Your task to perform on an android device: change notifications settings Image 0: 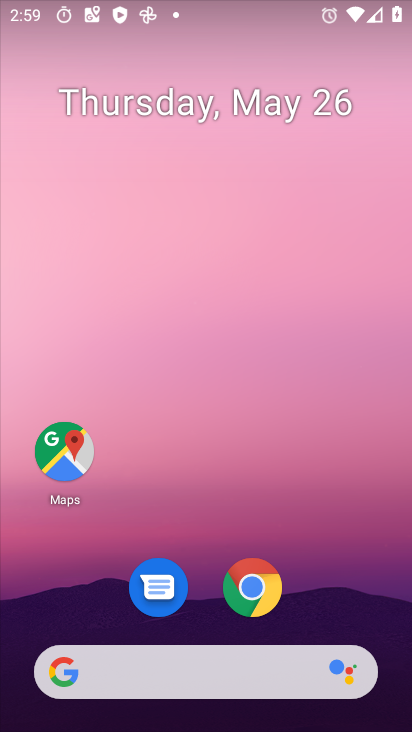
Step 0: drag from (362, 594) to (360, 178)
Your task to perform on an android device: change notifications settings Image 1: 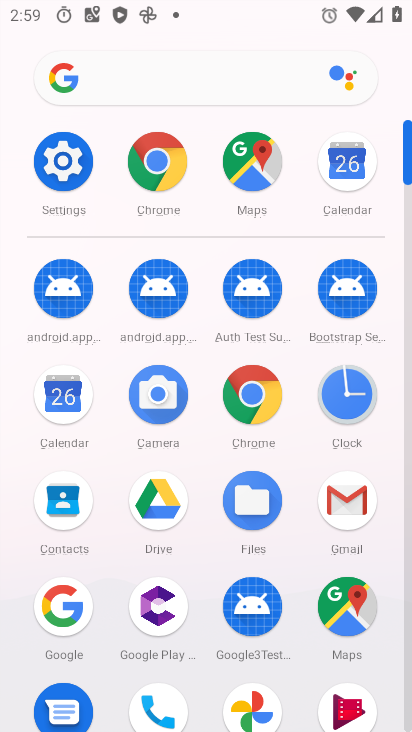
Step 1: click (73, 172)
Your task to perform on an android device: change notifications settings Image 2: 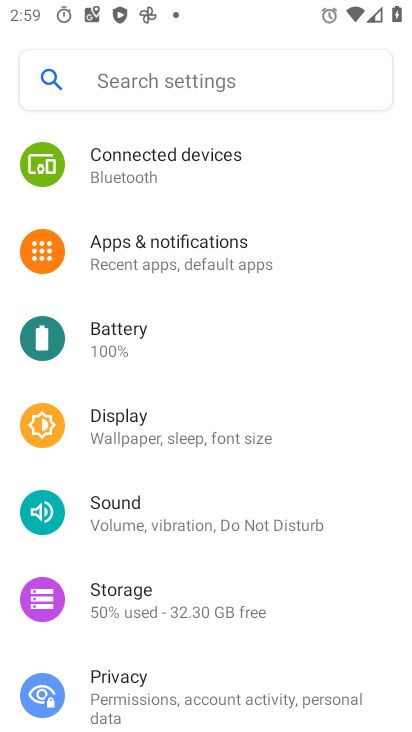
Step 2: drag from (339, 216) to (338, 320)
Your task to perform on an android device: change notifications settings Image 3: 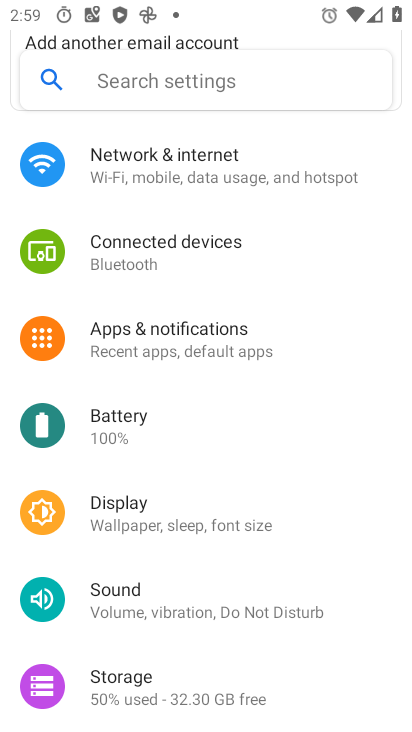
Step 3: drag from (333, 205) to (342, 303)
Your task to perform on an android device: change notifications settings Image 4: 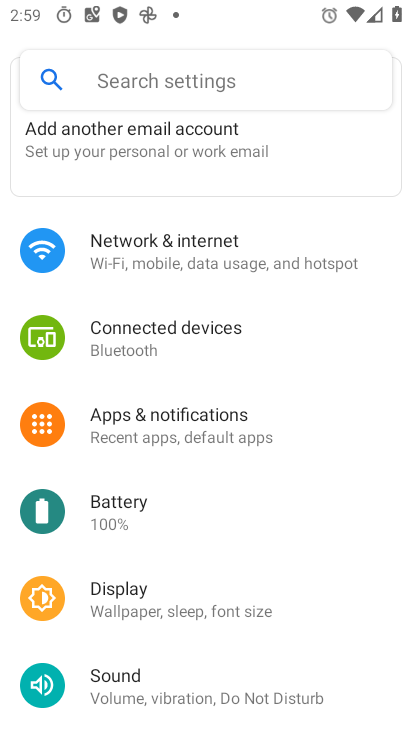
Step 4: drag from (332, 413) to (331, 308)
Your task to perform on an android device: change notifications settings Image 5: 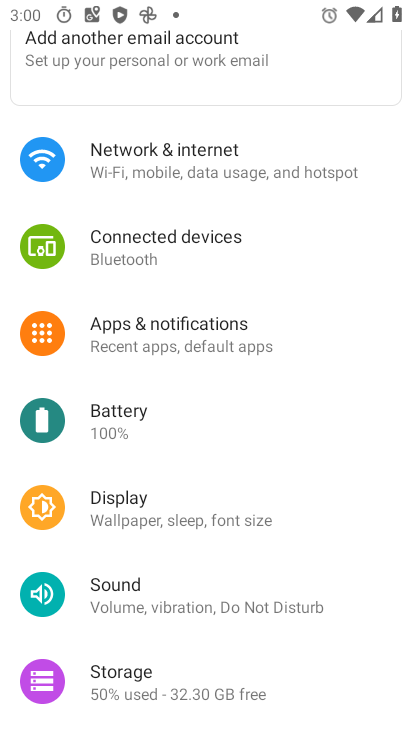
Step 5: click (259, 352)
Your task to perform on an android device: change notifications settings Image 6: 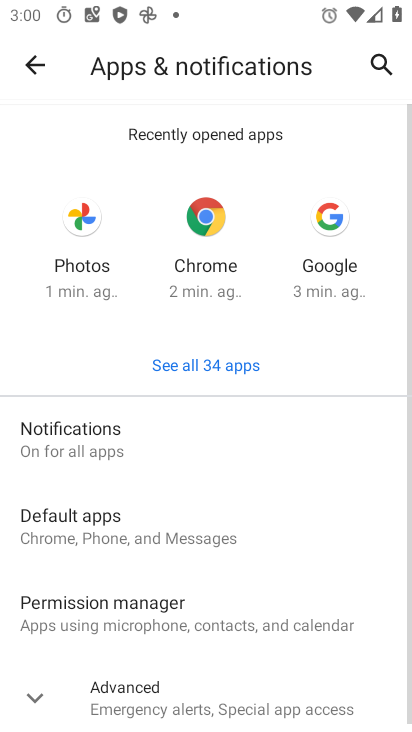
Step 6: click (193, 439)
Your task to perform on an android device: change notifications settings Image 7: 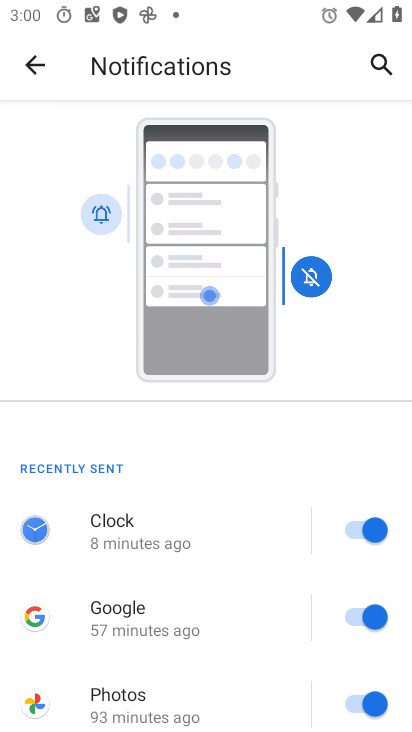
Step 7: drag from (284, 517) to (288, 413)
Your task to perform on an android device: change notifications settings Image 8: 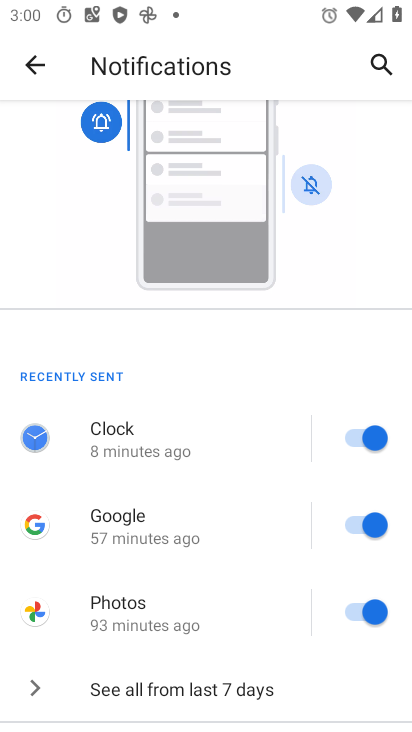
Step 8: drag from (285, 534) to (292, 408)
Your task to perform on an android device: change notifications settings Image 9: 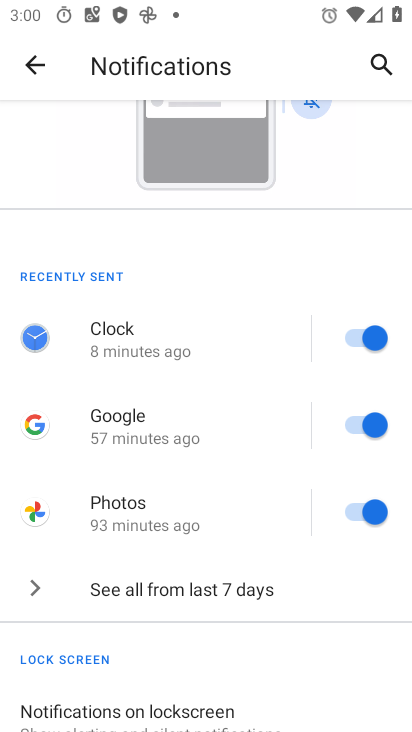
Step 9: click (369, 340)
Your task to perform on an android device: change notifications settings Image 10: 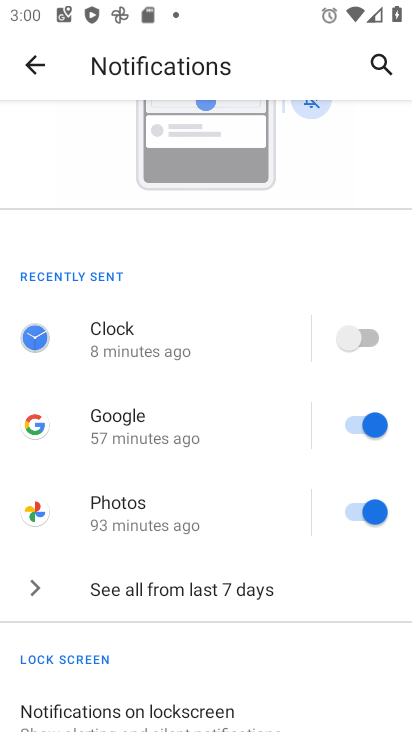
Step 10: click (374, 432)
Your task to perform on an android device: change notifications settings Image 11: 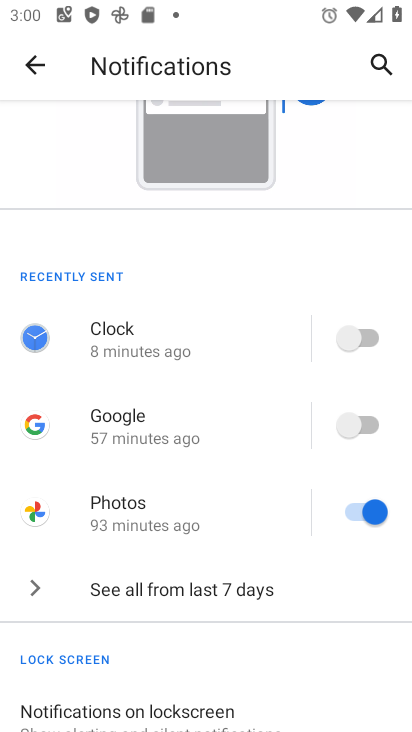
Step 11: click (378, 518)
Your task to perform on an android device: change notifications settings Image 12: 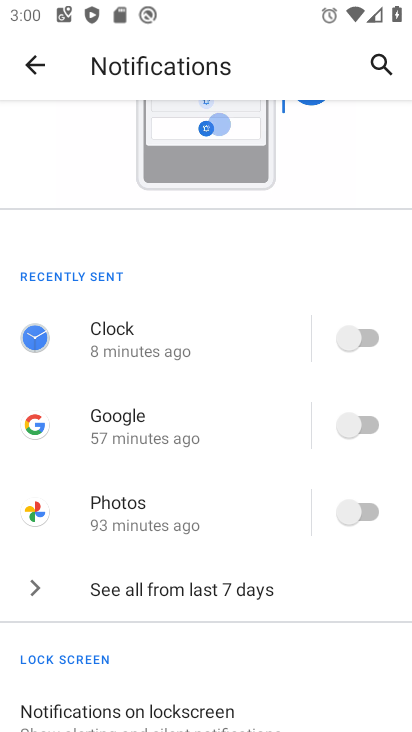
Step 12: task complete